Your task to perform on an android device: Search for handmade jewelry on Etsy. Image 0: 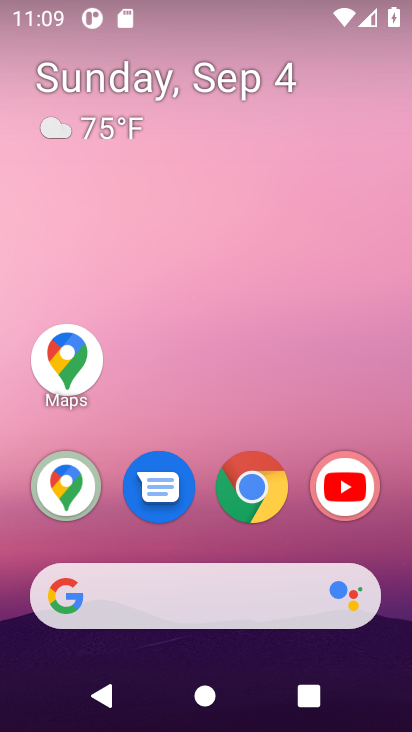
Step 0: click (322, 494)
Your task to perform on an android device: Search for handmade jewelry on Etsy. Image 1: 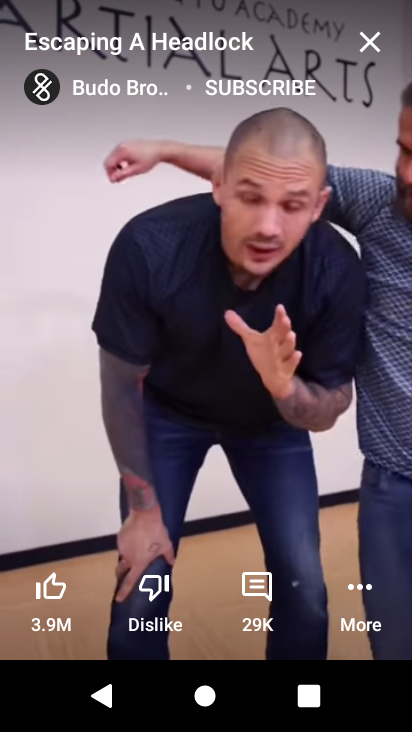
Step 1: task complete